Your task to perform on an android device: change timer sound Image 0: 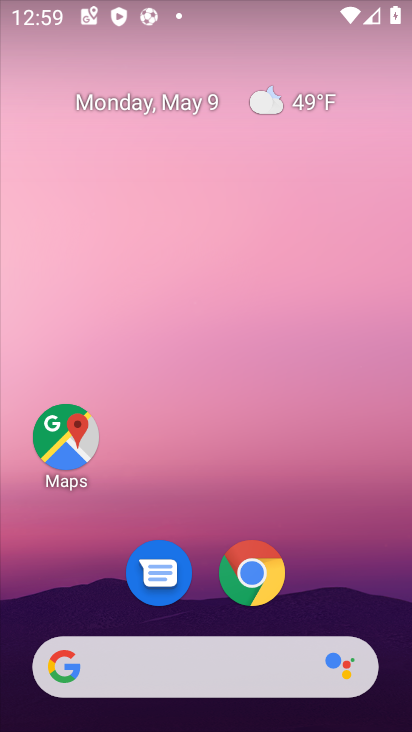
Step 0: drag from (211, 729) to (68, 1)
Your task to perform on an android device: change timer sound Image 1: 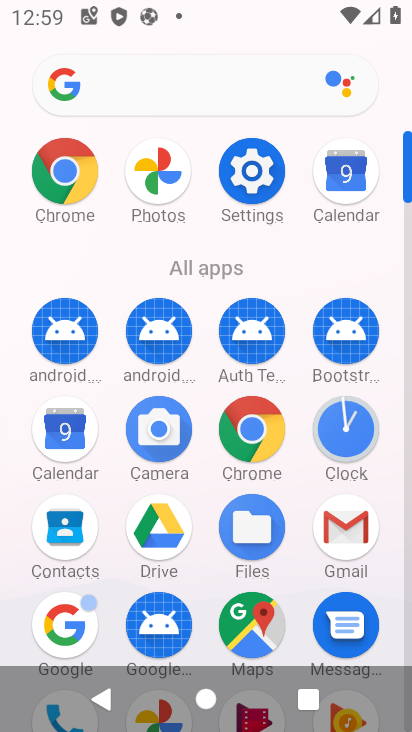
Step 1: click (331, 451)
Your task to perform on an android device: change timer sound Image 2: 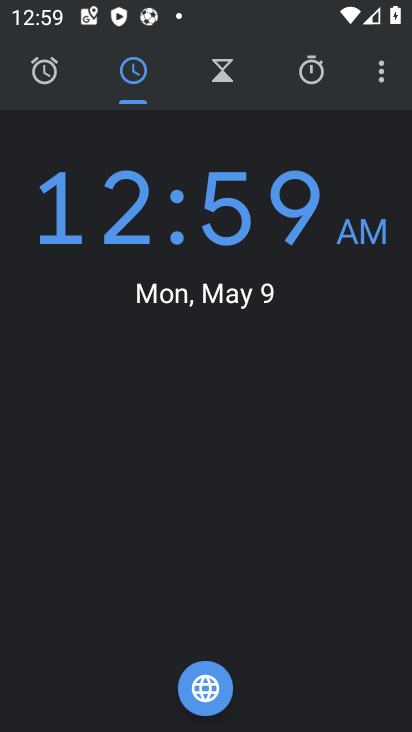
Step 2: click (378, 54)
Your task to perform on an android device: change timer sound Image 3: 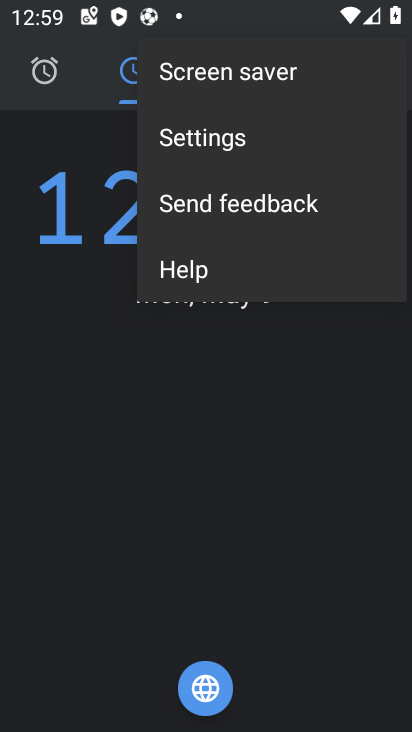
Step 3: click (259, 148)
Your task to perform on an android device: change timer sound Image 4: 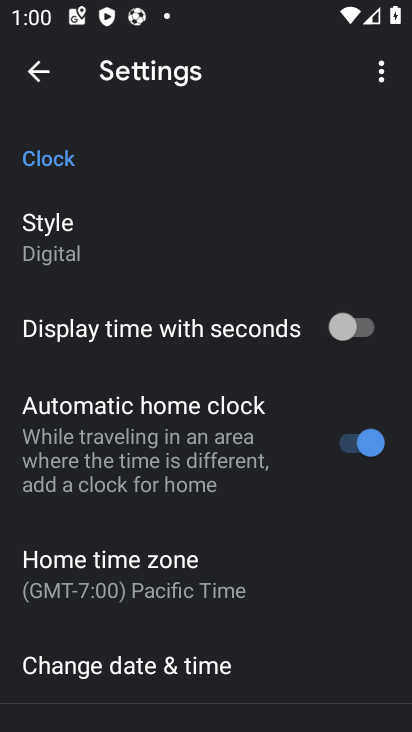
Step 4: drag from (197, 698) to (44, 166)
Your task to perform on an android device: change timer sound Image 5: 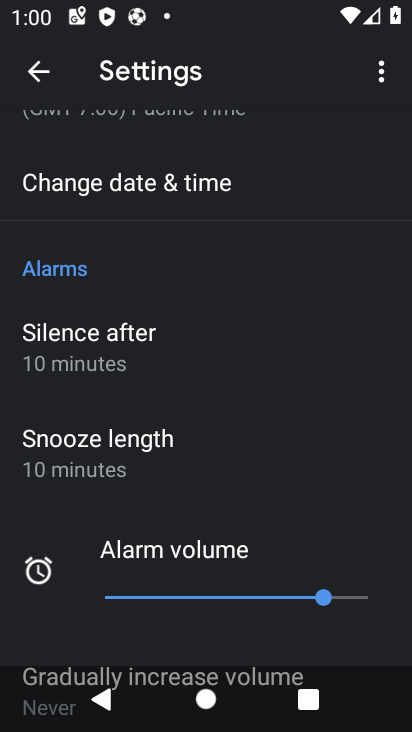
Step 5: drag from (175, 541) to (178, 189)
Your task to perform on an android device: change timer sound Image 6: 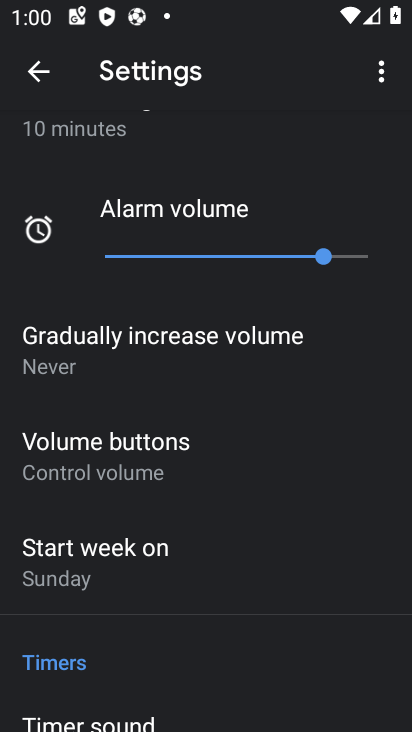
Step 6: drag from (148, 662) to (65, 168)
Your task to perform on an android device: change timer sound Image 7: 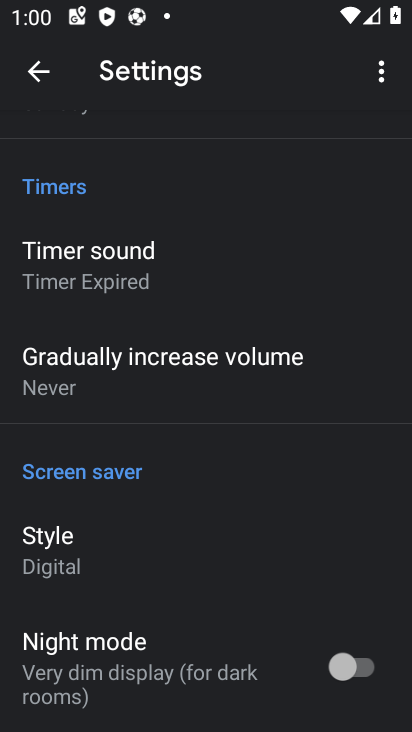
Step 7: click (72, 246)
Your task to perform on an android device: change timer sound Image 8: 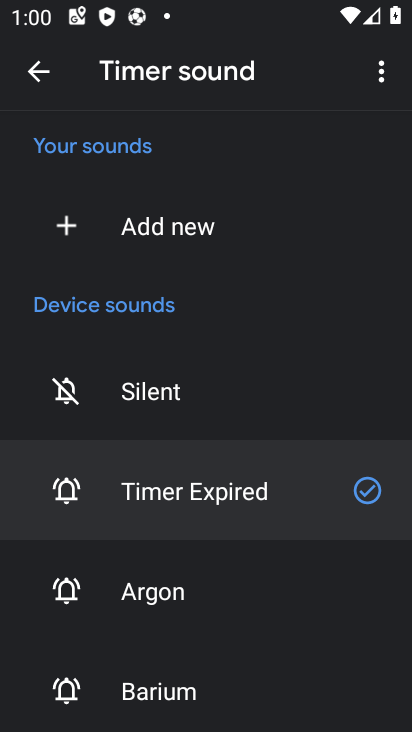
Step 8: click (177, 598)
Your task to perform on an android device: change timer sound Image 9: 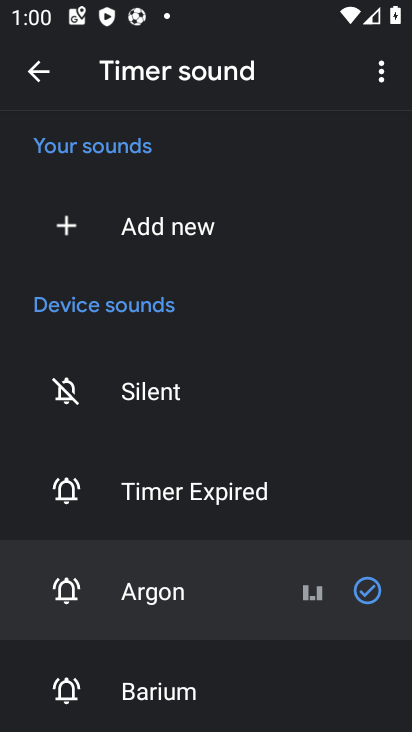
Step 9: task complete